Your task to perform on an android device: turn off location Image 0: 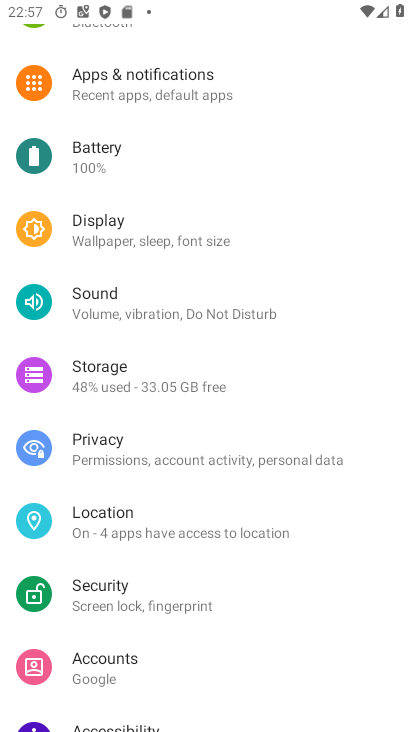
Step 0: click (180, 530)
Your task to perform on an android device: turn off location Image 1: 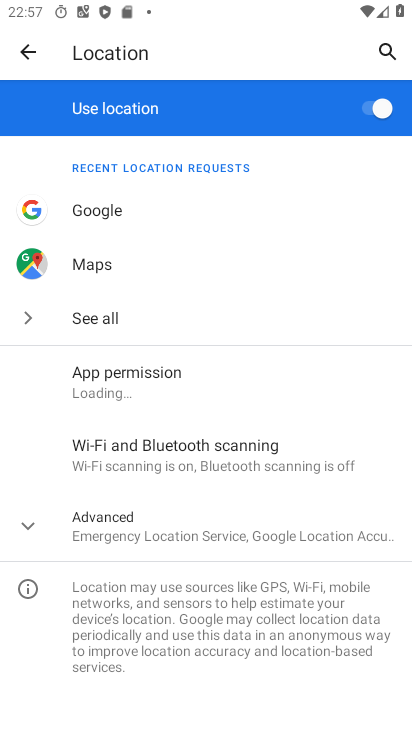
Step 1: click (388, 118)
Your task to perform on an android device: turn off location Image 2: 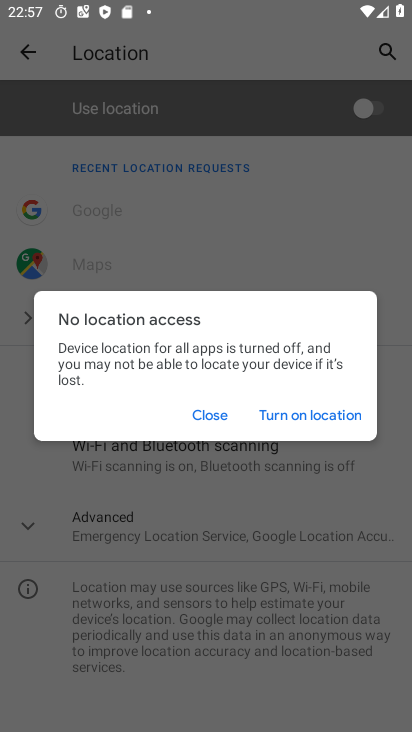
Step 2: click (213, 414)
Your task to perform on an android device: turn off location Image 3: 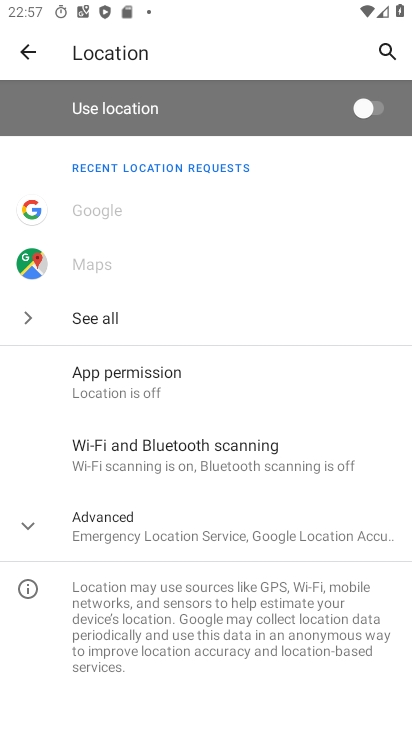
Step 3: task complete